Your task to perform on an android device: Go to accessibility settings Image 0: 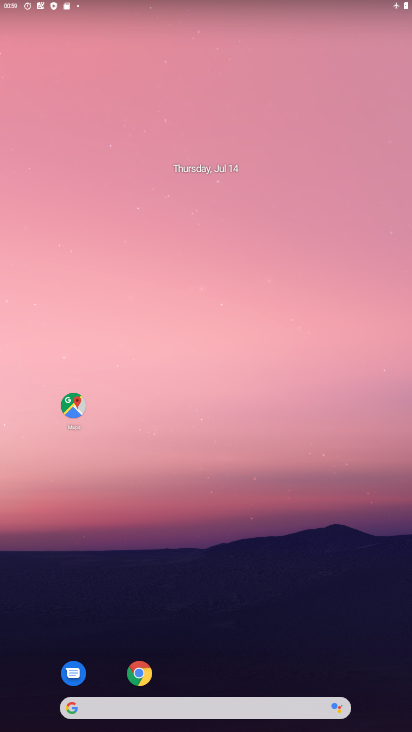
Step 0: drag from (230, 675) to (197, 152)
Your task to perform on an android device: Go to accessibility settings Image 1: 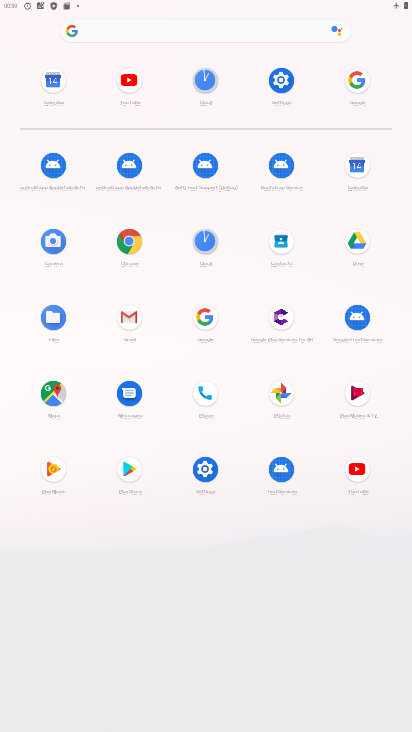
Step 1: click (279, 78)
Your task to perform on an android device: Go to accessibility settings Image 2: 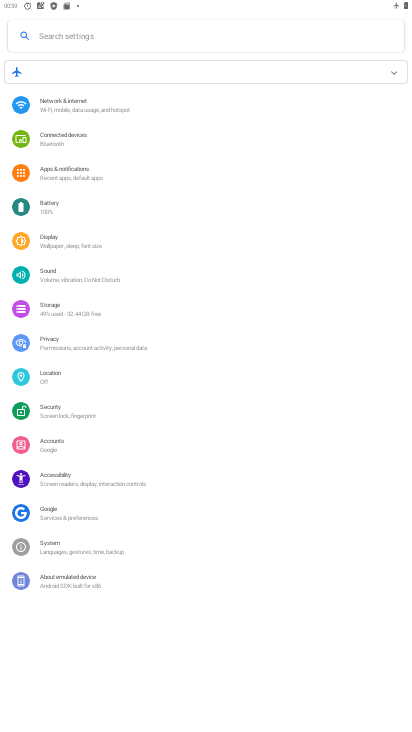
Step 2: click (74, 474)
Your task to perform on an android device: Go to accessibility settings Image 3: 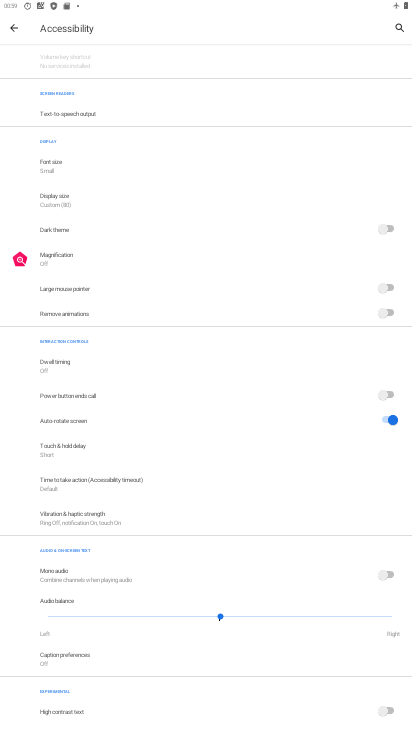
Step 3: task complete